Your task to perform on an android device: delete browsing data in the chrome app Image 0: 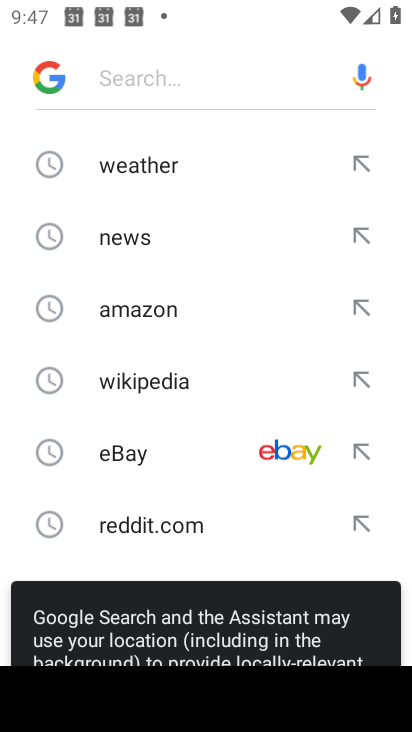
Step 0: press home button
Your task to perform on an android device: delete browsing data in the chrome app Image 1: 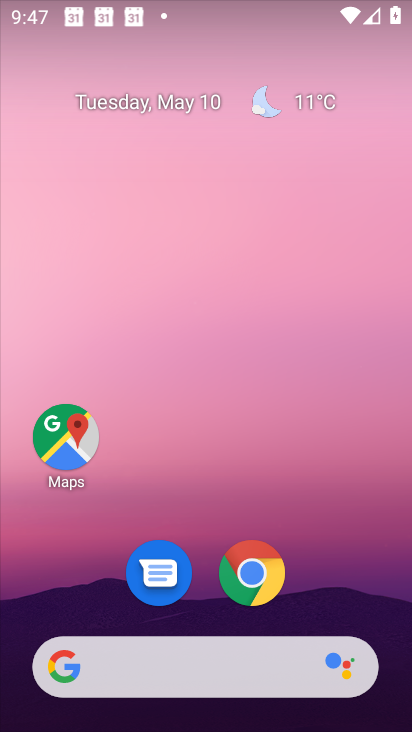
Step 1: click (250, 581)
Your task to perform on an android device: delete browsing data in the chrome app Image 2: 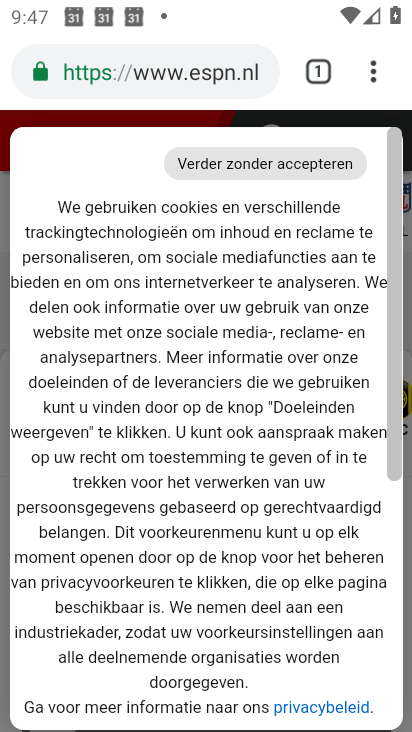
Step 2: drag from (371, 74) to (181, 414)
Your task to perform on an android device: delete browsing data in the chrome app Image 3: 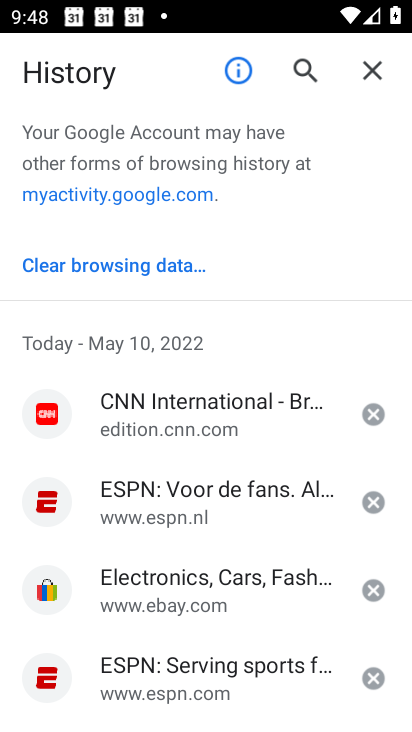
Step 3: click (117, 261)
Your task to perform on an android device: delete browsing data in the chrome app Image 4: 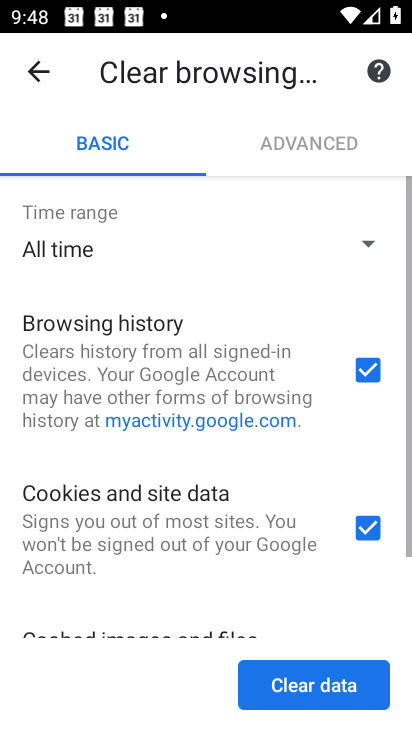
Step 4: click (371, 521)
Your task to perform on an android device: delete browsing data in the chrome app Image 5: 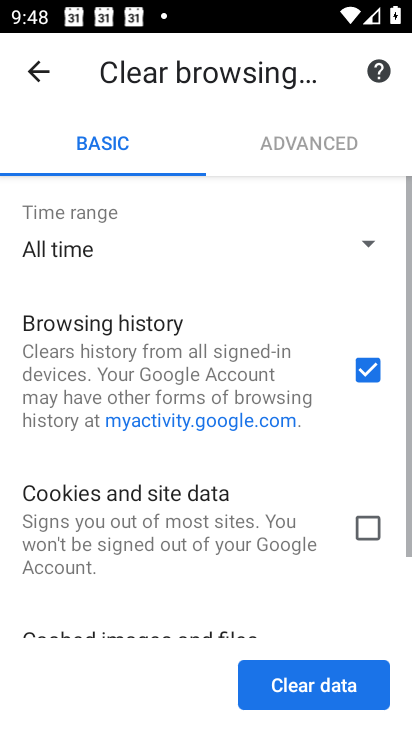
Step 5: drag from (324, 596) to (296, 242)
Your task to perform on an android device: delete browsing data in the chrome app Image 6: 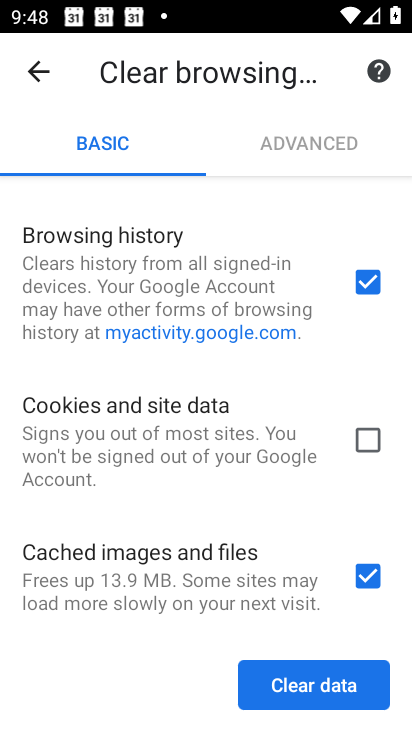
Step 6: click (372, 574)
Your task to perform on an android device: delete browsing data in the chrome app Image 7: 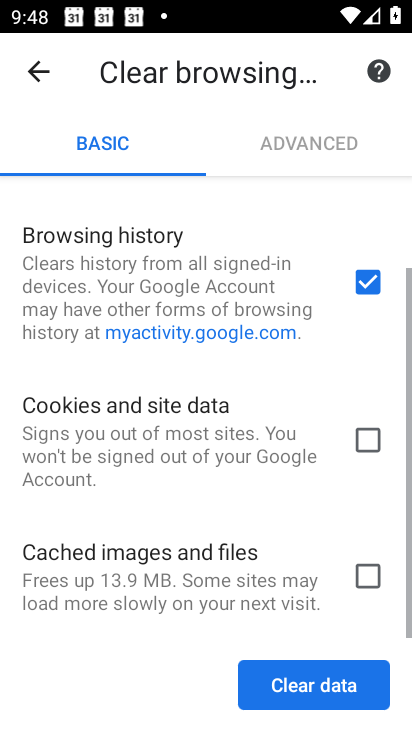
Step 7: click (316, 698)
Your task to perform on an android device: delete browsing data in the chrome app Image 8: 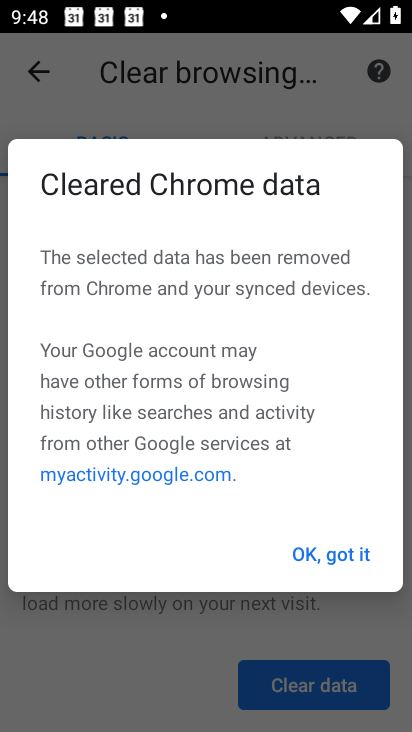
Step 8: click (333, 561)
Your task to perform on an android device: delete browsing data in the chrome app Image 9: 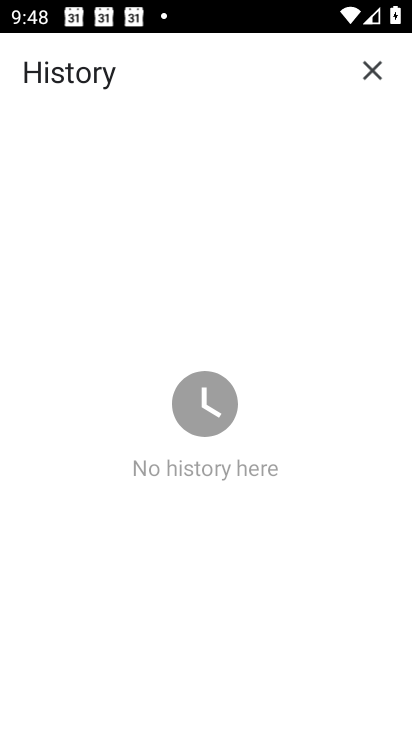
Step 9: task complete